Your task to perform on an android device: turn off wifi Image 0: 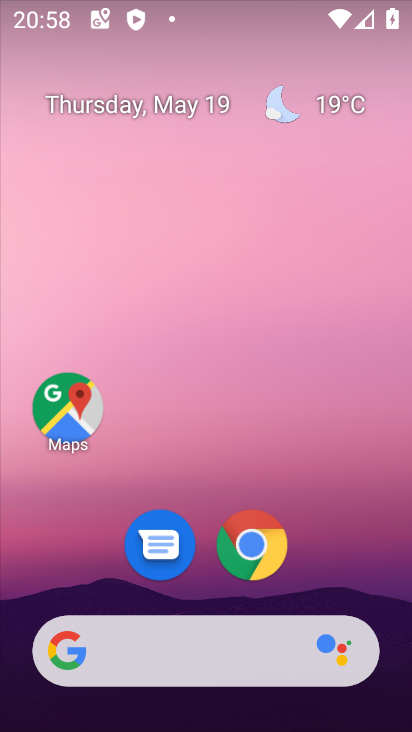
Step 0: drag from (373, 554) to (351, 92)
Your task to perform on an android device: turn off wifi Image 1: 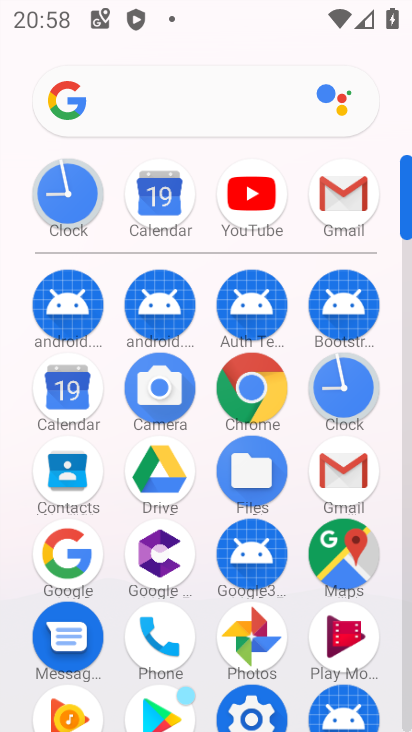
Step 1: click (271, 723)
Your task to perform on an android device: turn off wifi Image 2: 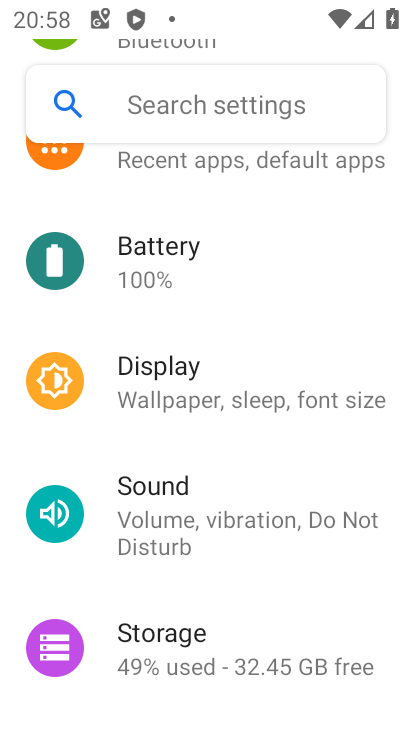
Step 2: drag from (215, 249) to (297, 643)
Your task to perform on an android device: turn off wifi Image 3: 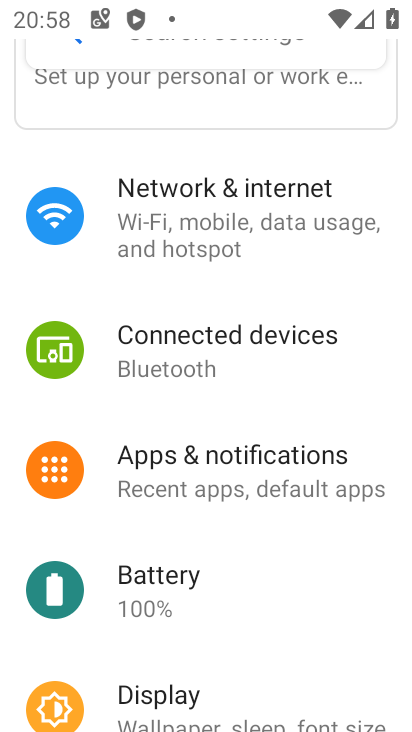
Step 3: click (265, 243)
Your task to perform on an android device: turn off wifi Image 4: 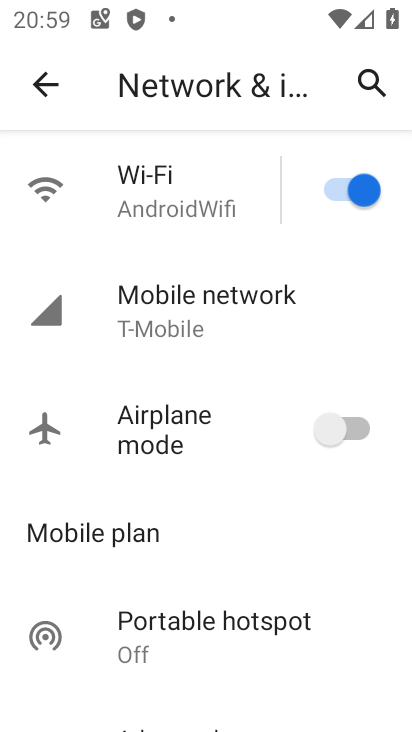
Step 4: click (365, 188)
Your task to perform on an android device: turn off wifi Image 5: 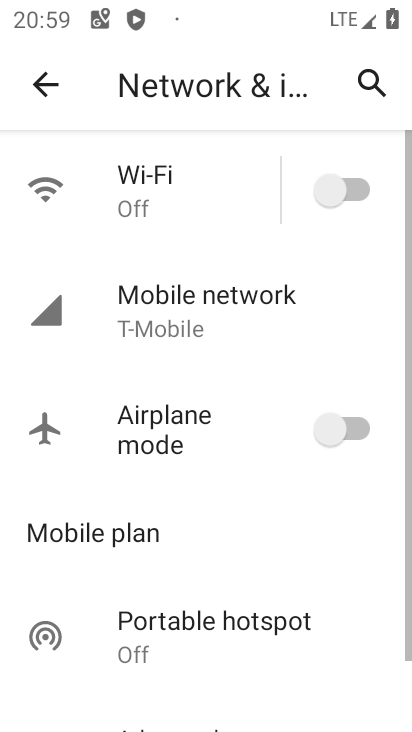
Step 5: task complete